Your task to perform on an android device: Open Amazon Image 0: 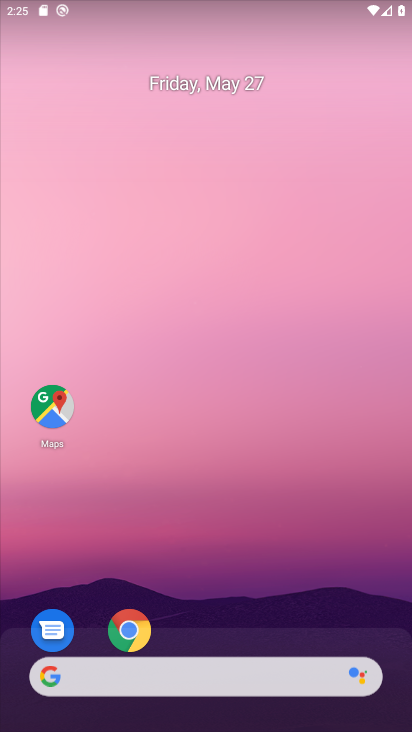
Step 0: click (136, 637)
Your task to perform on an android device: Open Amazon Image 1: 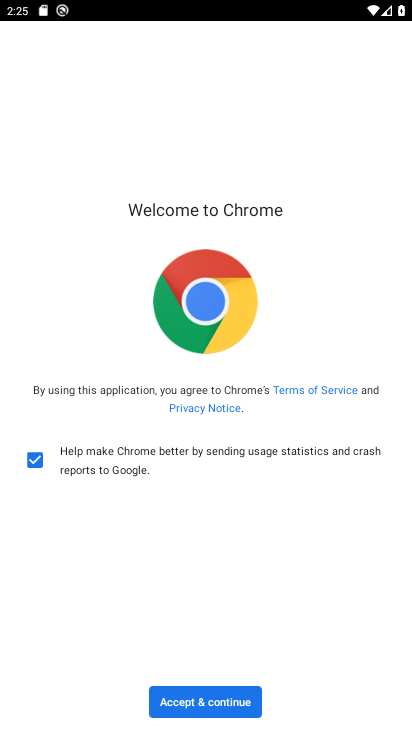
Step 1: click (212, 695)
Your task to perform on an android device: Open Amazon Image 2: 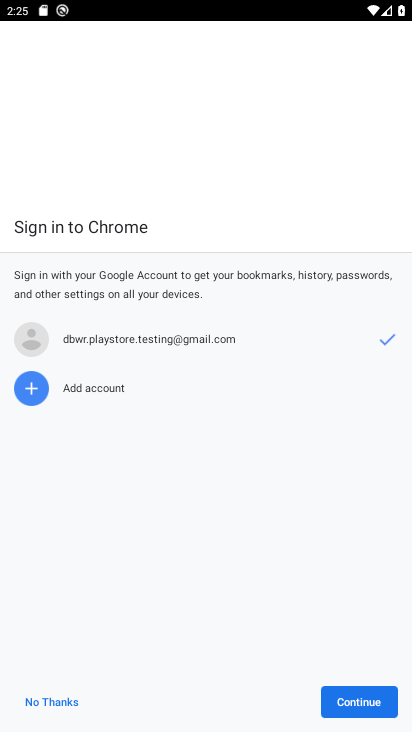
Step 2: click (377, 697)
Your task to perform on an android device: Open Amazon Image 3: 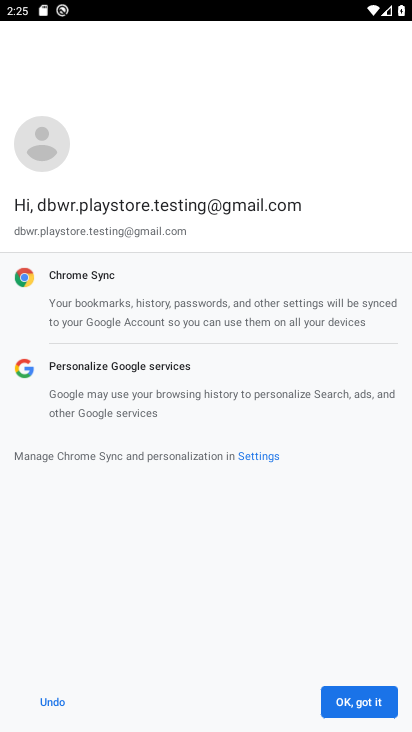
Step 3: click (359, 689)
Your task to perform on an android device: Open Amazon Image 4: 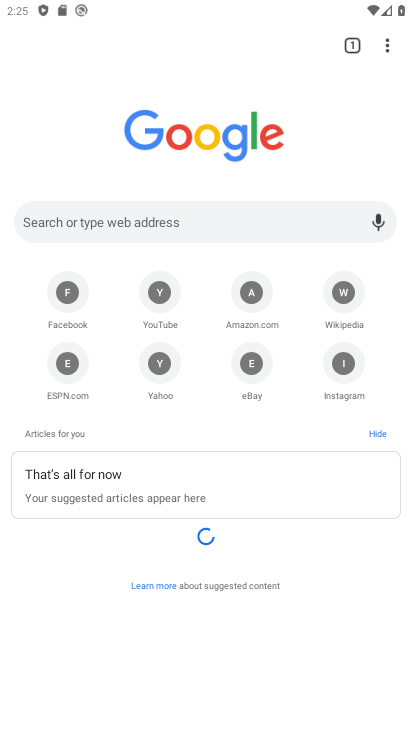
Step 4: click (255, 301)
Your task to perform on an android device: Open Amazon Image 5: 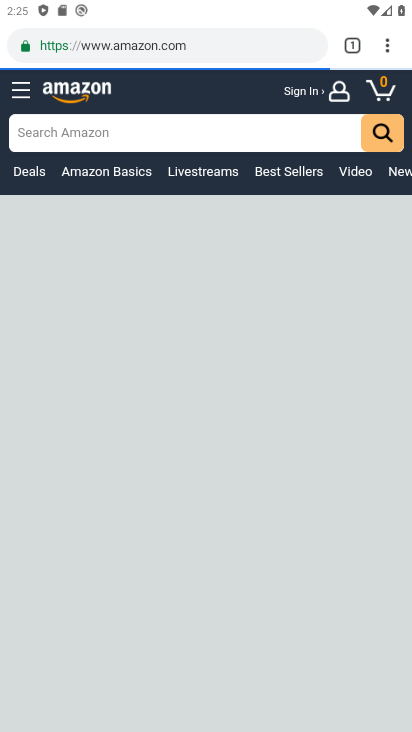
Step 5: task complete